Your task to perform on an android device: change notification settings in the gmail app Image 0: 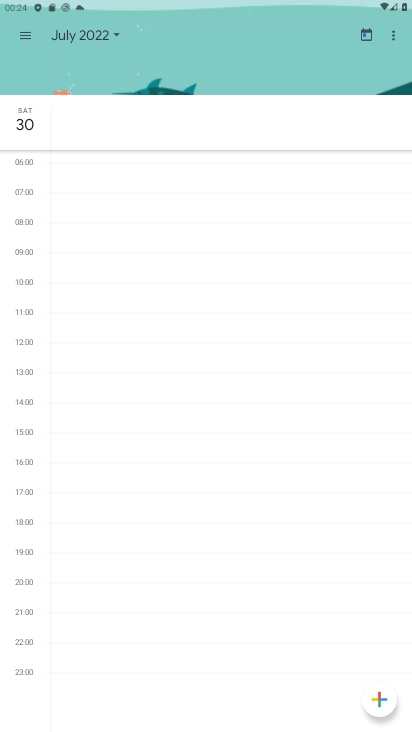
Step 0: press home button
Your task to perform on an android device: change notification settings in the gmail app Image 1: 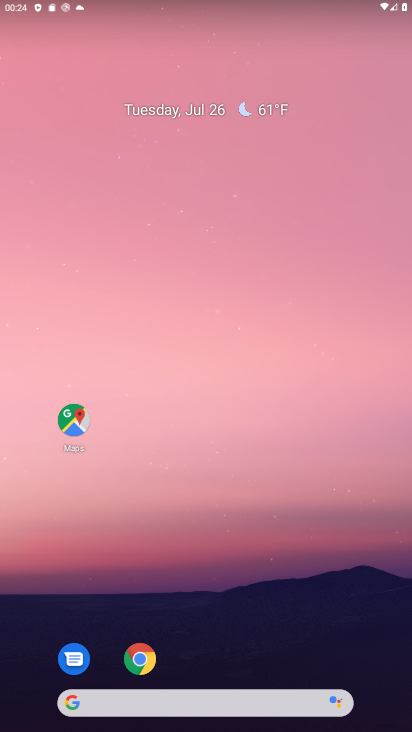
Step 1: drag from (273, 609) to (258, 38)
Your task to perform on an android device: change notification settings in the gmail app Image 2: 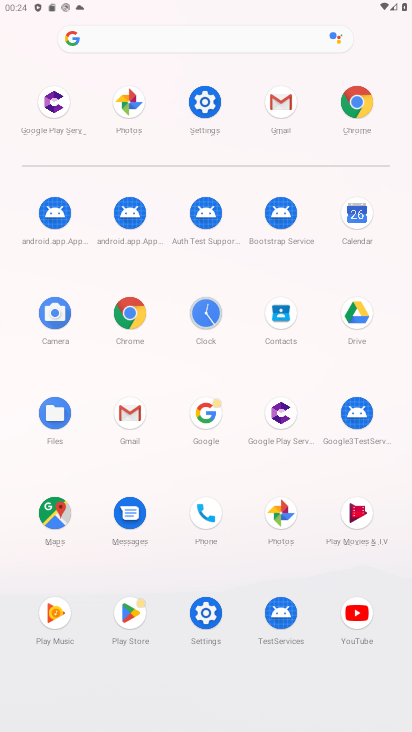
Step 2: click (284, 104)
Your task to perform on an android device: change notification settings in the gmail app Image 3: 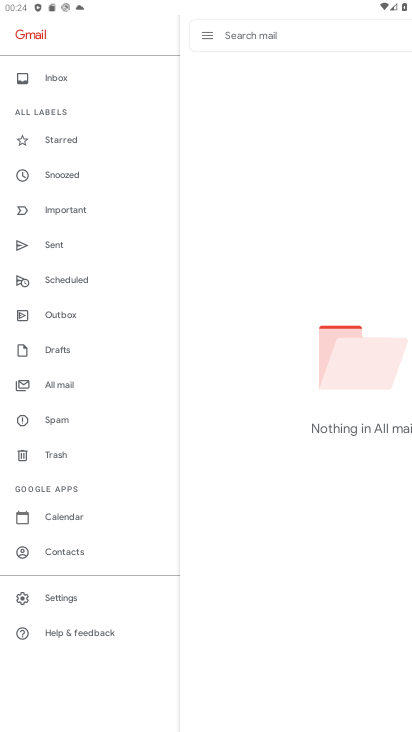
Step 3: click (60, 583)
Your task to perform on an android device: change notification settings in the gmail app Image 4: 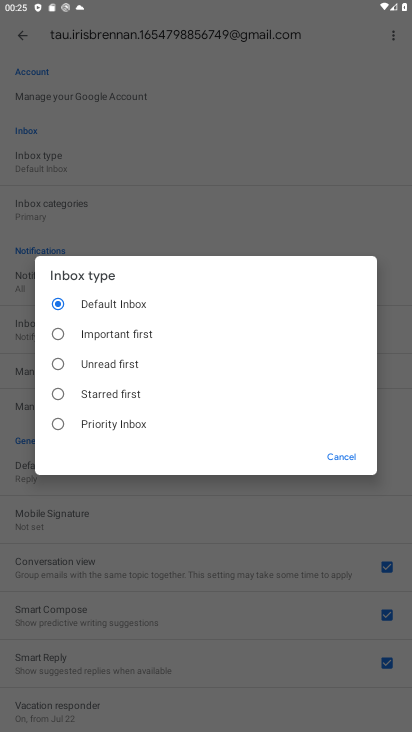
Step 4: click (330, 450)
Your task to perform on an android device: change notification settings in the gmail app Image 5: 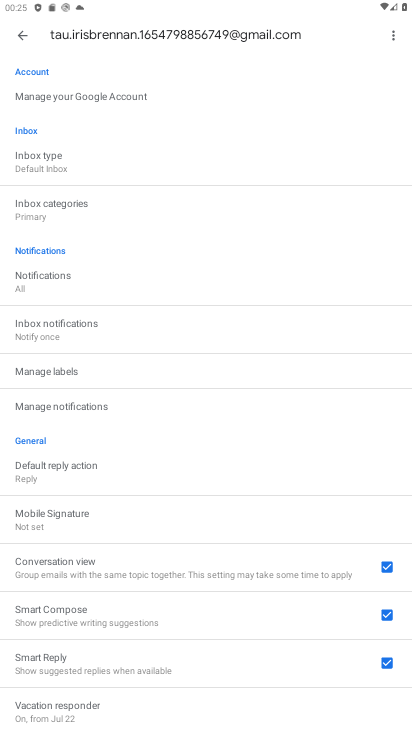
Step 5: click (91, 408)
Your task to perform on an android device: change notification settings in the gmail app Image 6: 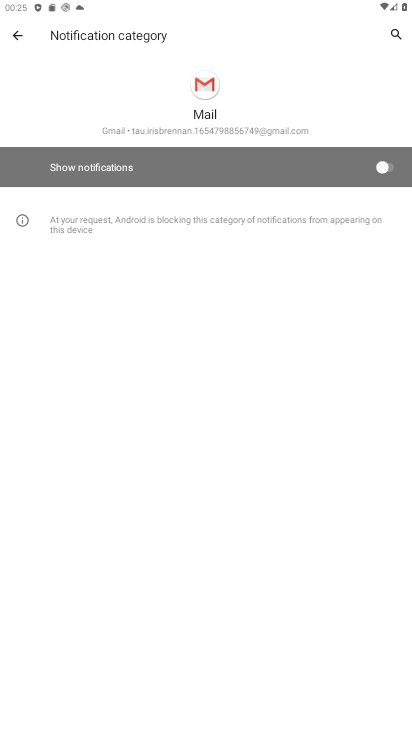
Step 6: click (363, 171)
Your task to perform on an android device: change notification settings in the gmail app Image 7: 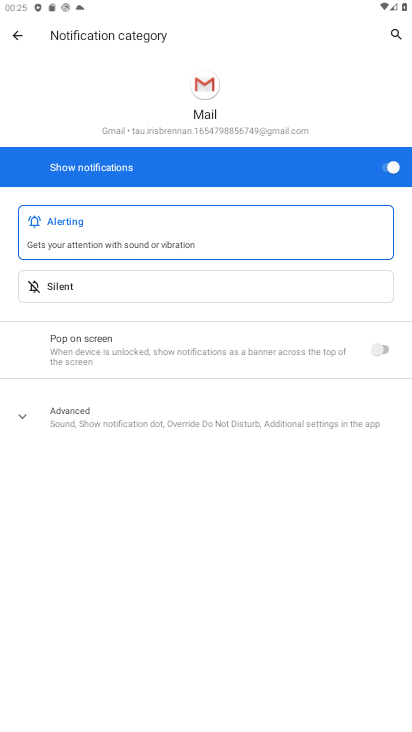
Step 7: task complete